Your task to perform on an android device: empty trash in google photos Image 0: 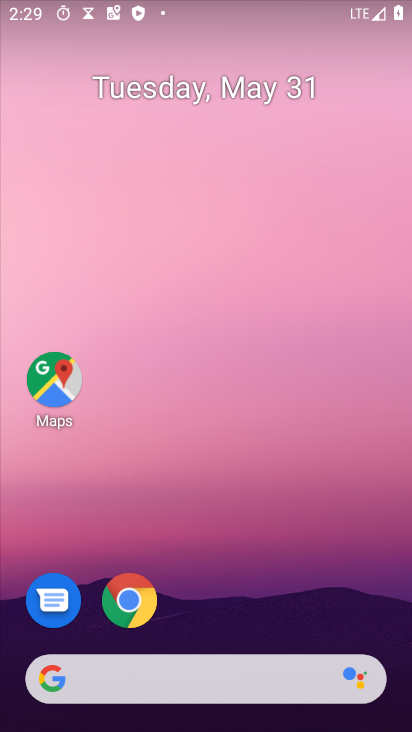
Step 0: press home button
Your task to perform on an android device: empty trash in google photos Image 1: 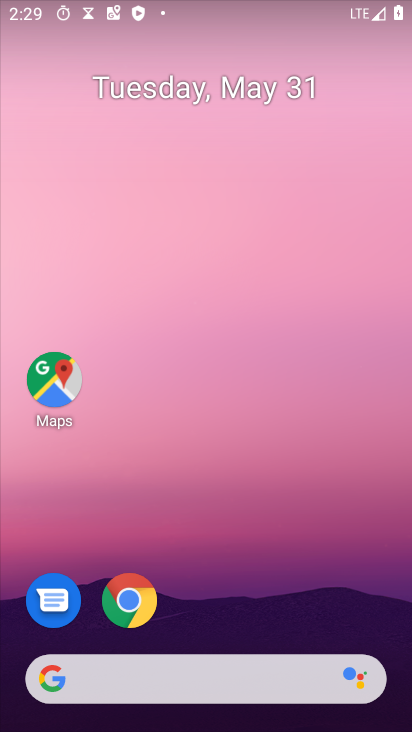
Step 1: drag from (210, 632) to (226, 53)
Your task to perform on an android device: empty trash in google photos Image 2: 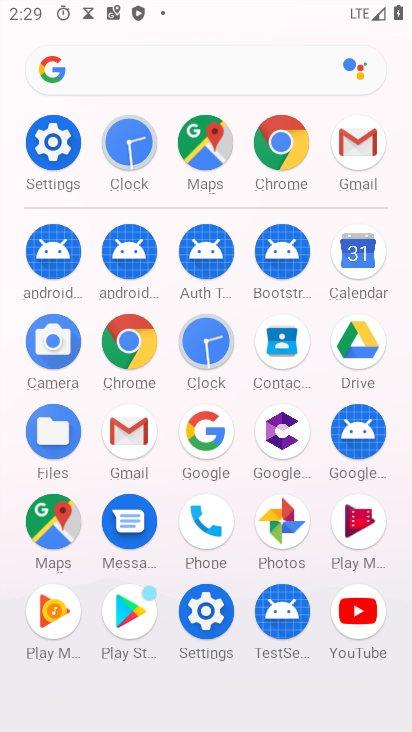
Step 2: click (286, 523)
Your task to perform on an android device: empty trash in google photos Image 3: 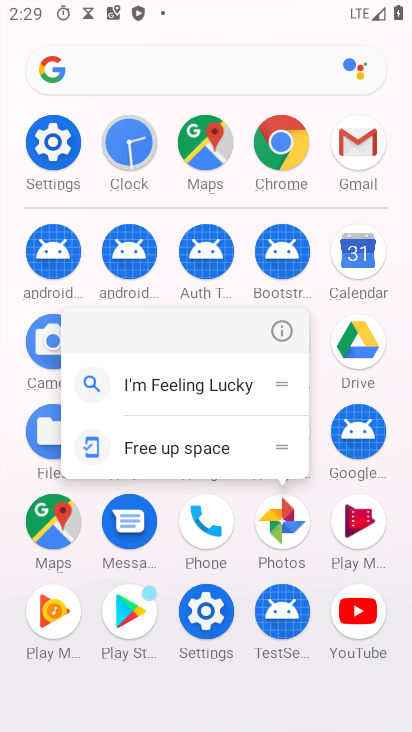
Step 3: click (275, 521)
Your task to perform on an android device: empty trash in google photos Image 4: 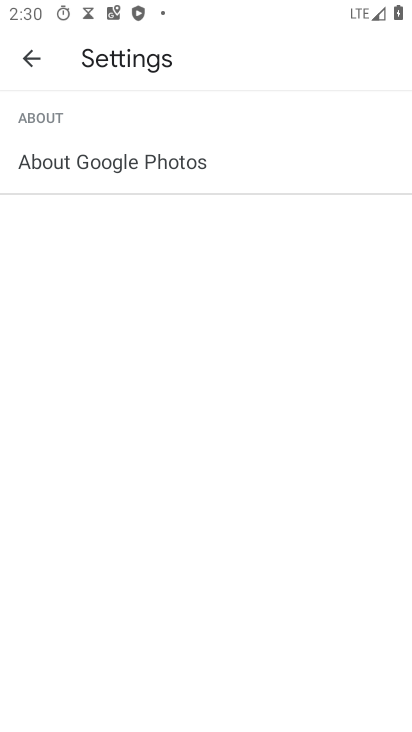
Step 4: click (34, 57)
Your task to perform on an android device: empty trash in google photos Image 5: 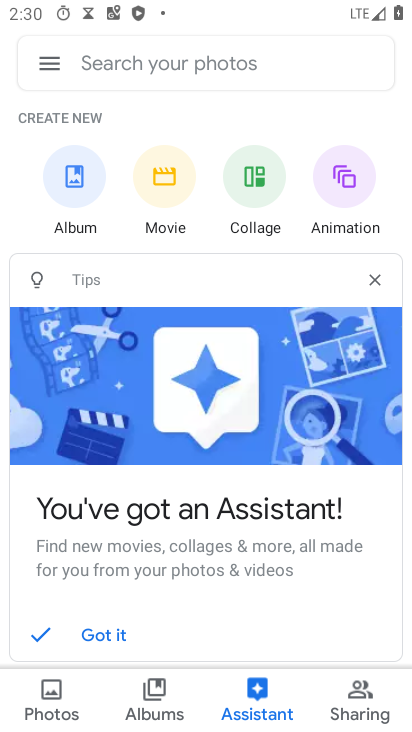
Step 5: click (50, 60)
Your task to perform on an android device: empty trash in google photos Image 6: 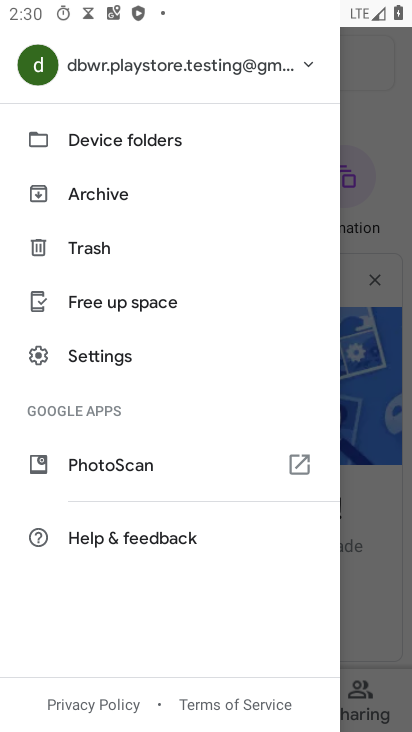
Step 6: click (116, 243)
Your task to perform on an android device: empty trash in google photos Image 7: 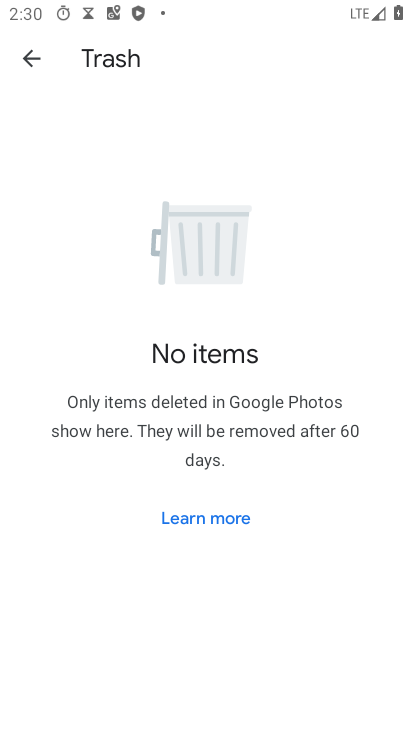
Step 7: task complete